Your task to perform on an android device: Open accessibility settings Image 0: 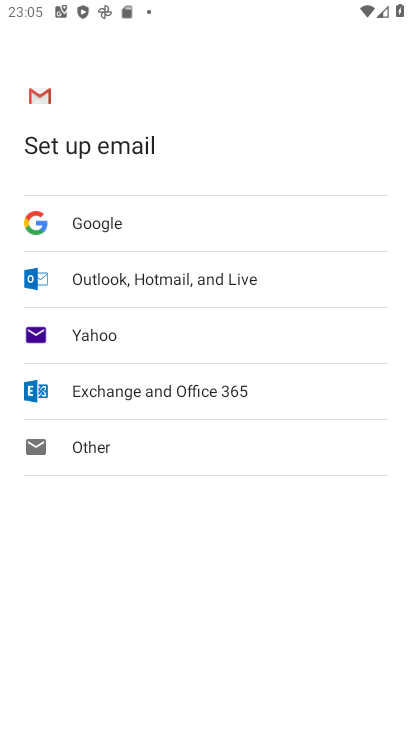
Step 0: press home button
Your task to perform on an android device: Open accessibility settings Image 1: 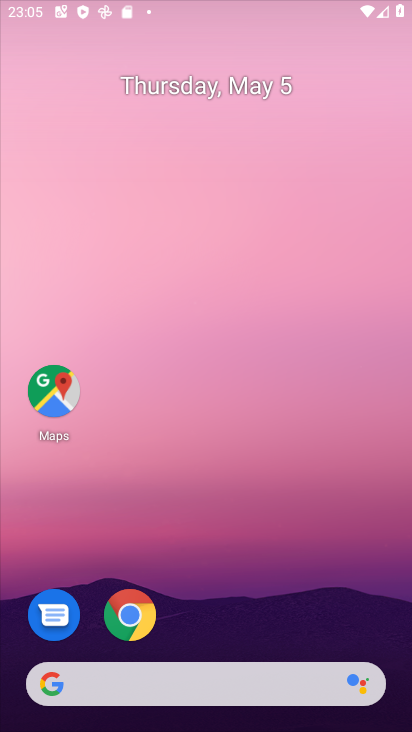
Step 1: drag from (247, 549) to (307, 8)
Your task to perform on an android device: Open accessibility settings Image 2: 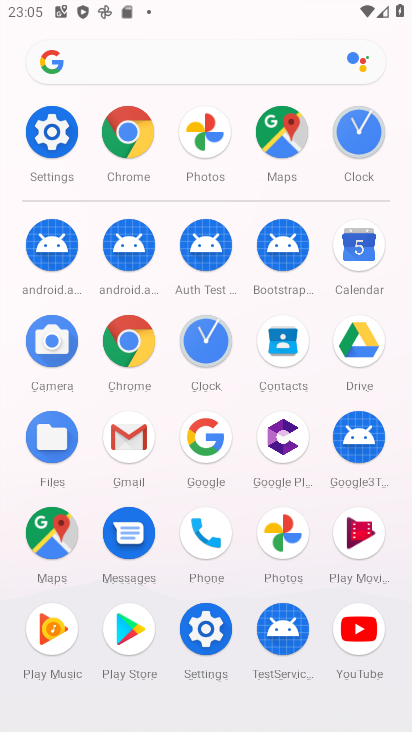
Step 2: click (54, 132)
Your task to perform on an android device: Open accessibility settings Image 3: 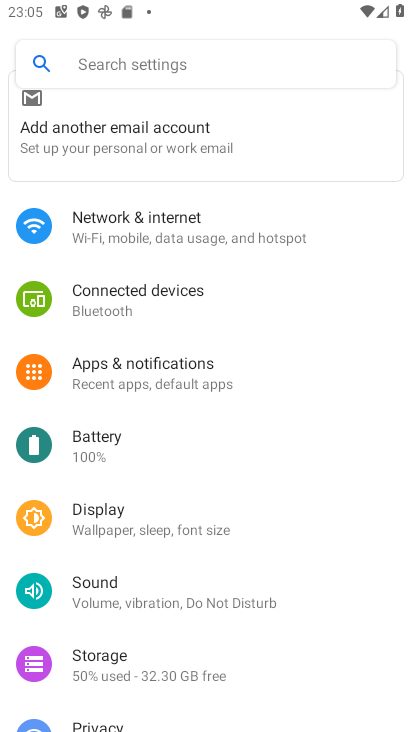
Step 3: drag from (201, 600) to (226, 83)
Your task to perform on an android device: Open accessibility settings Image 4: 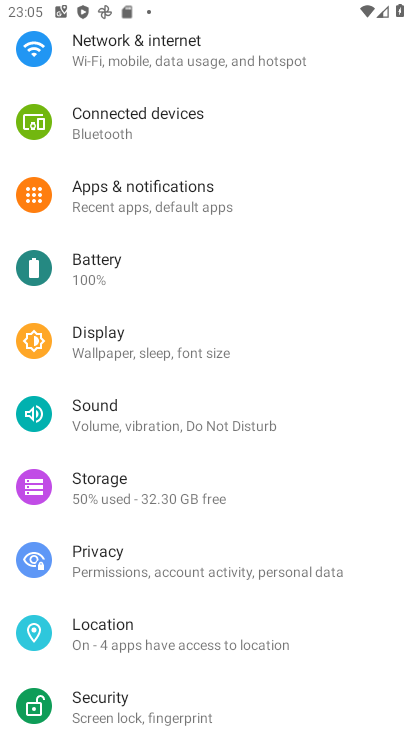
Step 4: drag from (186, 634) to (253, 89)
Your task to perform on an android device: Open accessibility settings Image 5: 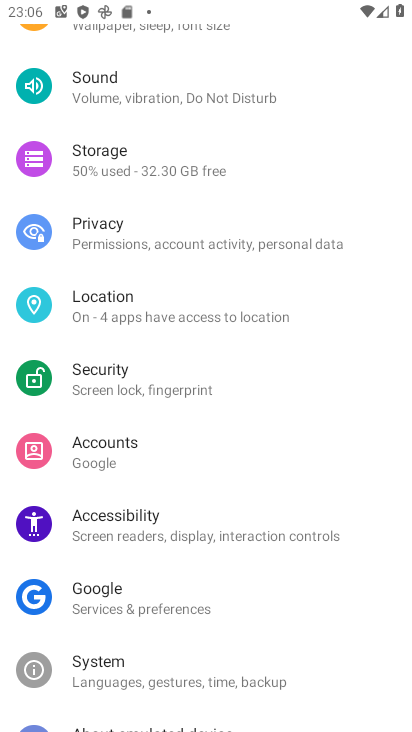
Step 5: click (121, 519)
Your task to perform on an android device: Open accessibility settings Image 6: 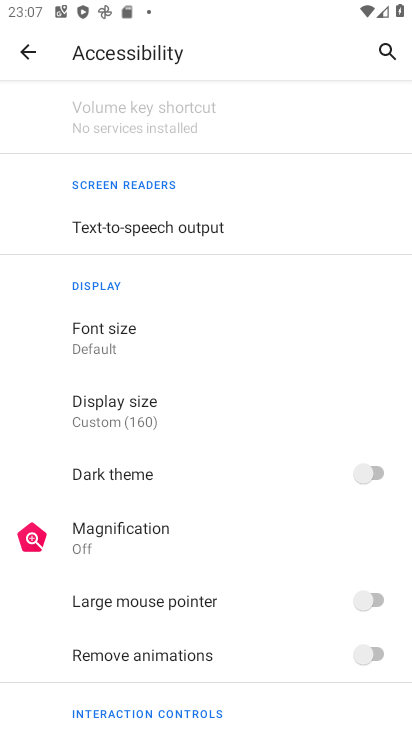
Step 6: task complete